Your task to perform on an android device: Open the web browser Image 0: 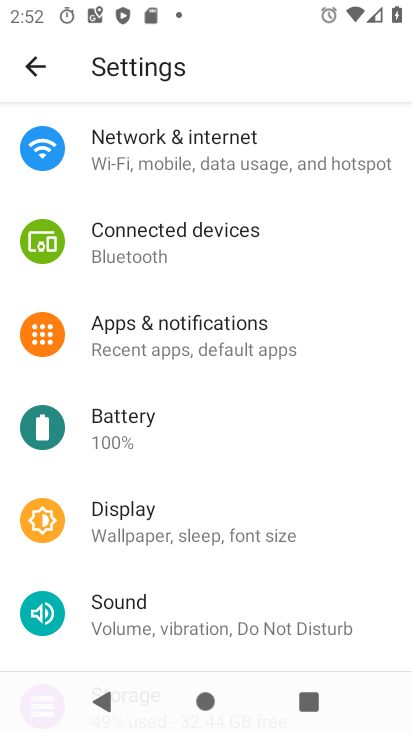
Step 0: press home button
Your task to perform on an android device: Open the web browser Image 1: 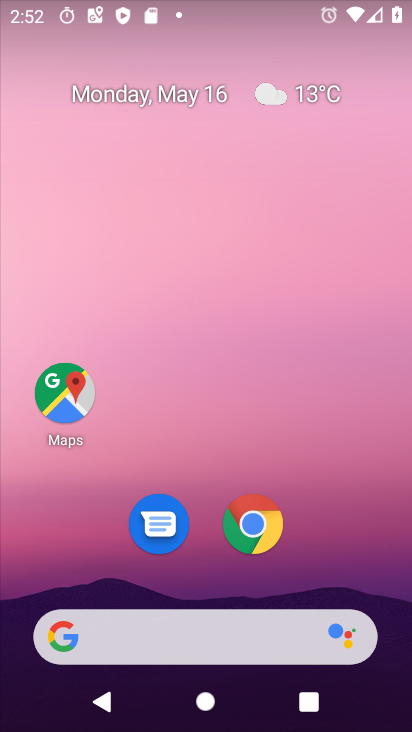
Step 1: click (255, 514)
Your task to perform on an android device: Open the web browser Image 2: 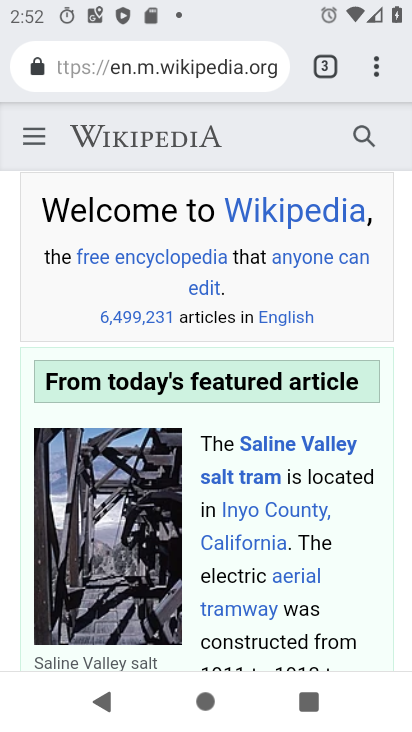
Step 2: task complete